Your task to perform on an android device: turn on sleep mode Image 0: 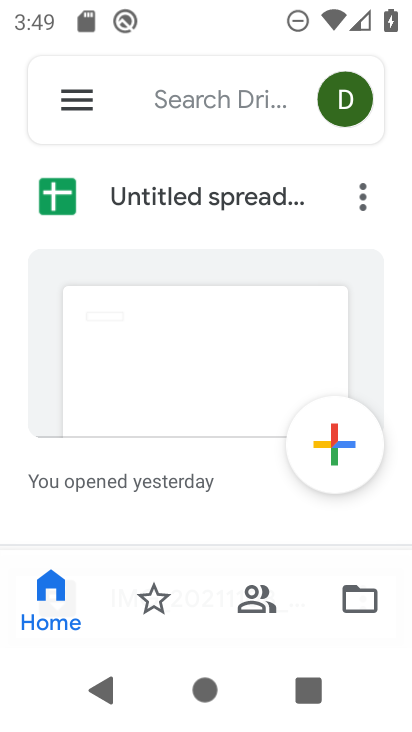
Step 0: press home button
Your task to perform on an android device: turn on sleep mode Image 1: 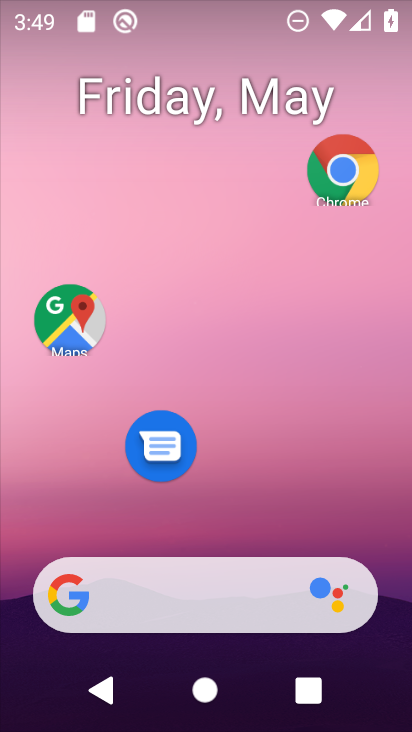
Step 1: task complete